Your task to perform on an android device: What's US dollar exchange rate against the Chinese Yuan? Image 0: 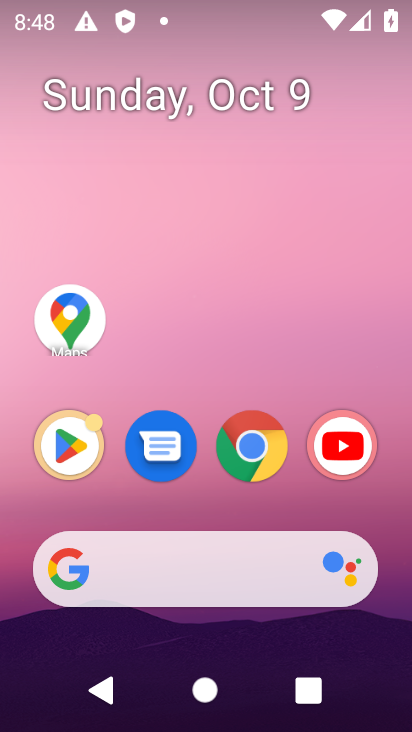
Step 0: click (248, 445)
Your task to perform on an android device: What's US dollar exchange rate against the Chinese Yuan? Image 1: 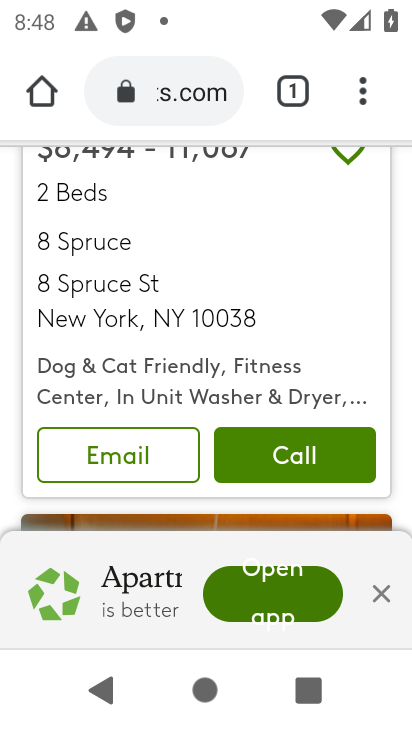
Step 1: click (184, 102)
Your task to perform on an android device: What's US dollar exchange rate against the Chinese Yuan? Image 2: 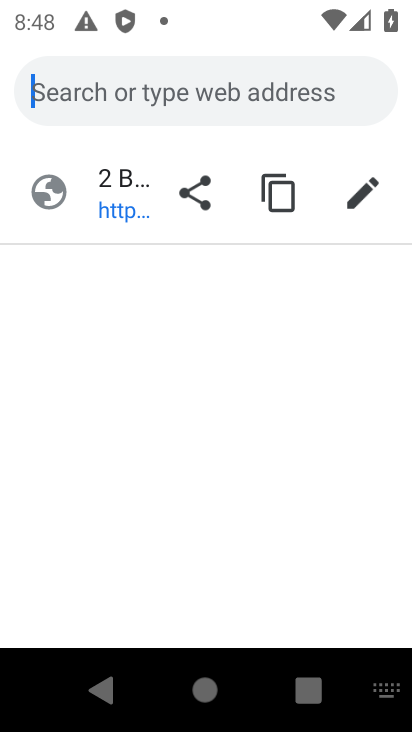
Step 2: type "US dollar exchange rate against the Chinese Yuan"
Your task to perform on an android device: What's US dollar exchange rate against the Chinese Yuan? Image 3: 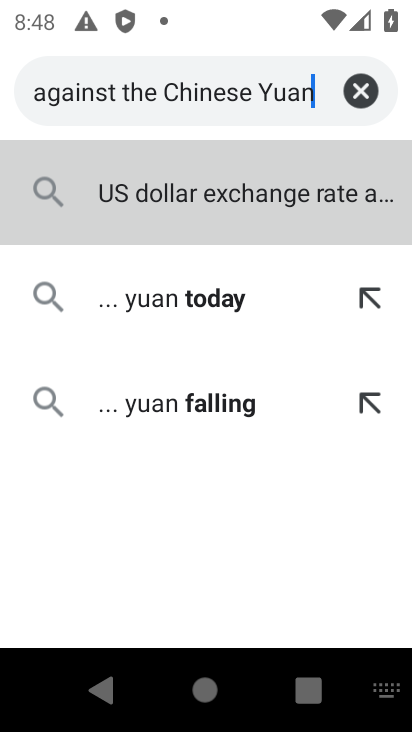
Step 3: type ""
Your task to perform on an android device: What's US dollar exchange rate against the Chinese Yuan? Image 4: 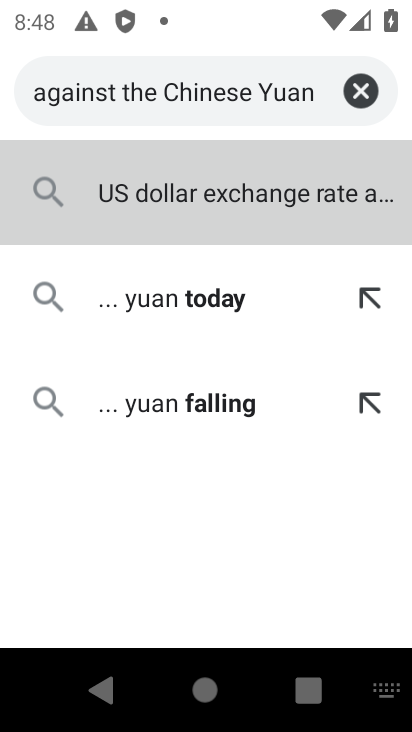
Step 4: press enter
Your task to perform on an android device: What's US dollar exchange rate against the Chinese Yuan? Image 5: 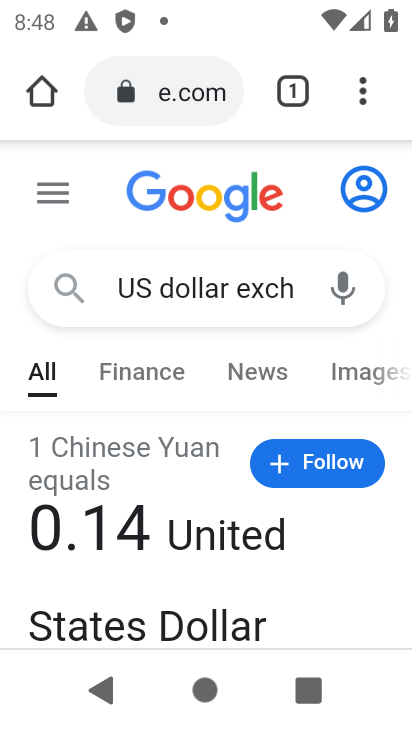
Step 5: task complete